Your task to perform on an android device: Open Youtube and go to the subscriptions tab Image 0: 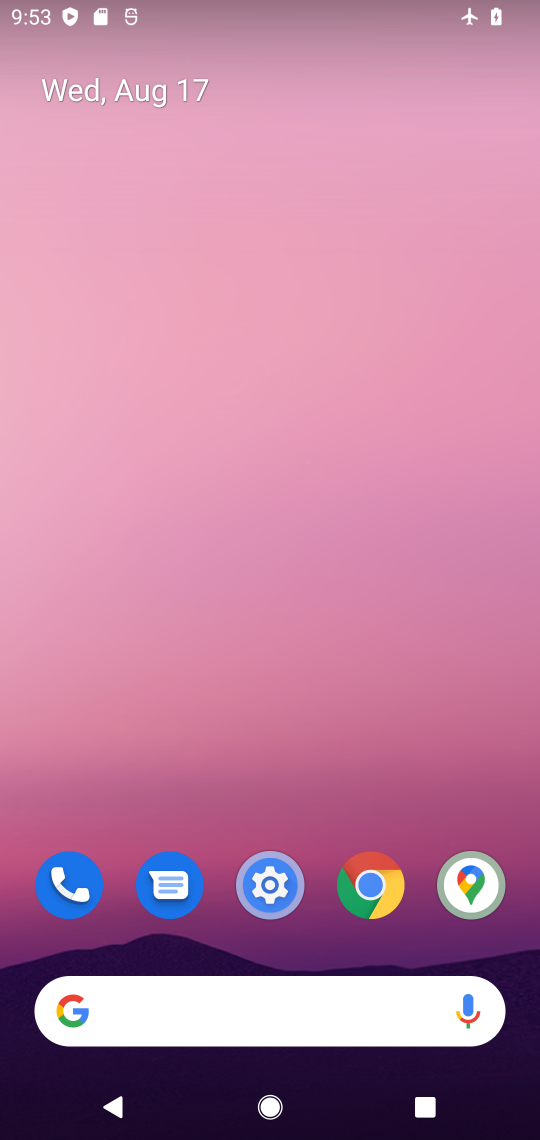
Step 0: drag from (437, 921) to (384, 338)
Your task to perform on an android device: Open Youtube and go to the subscriptions tab Image 1: 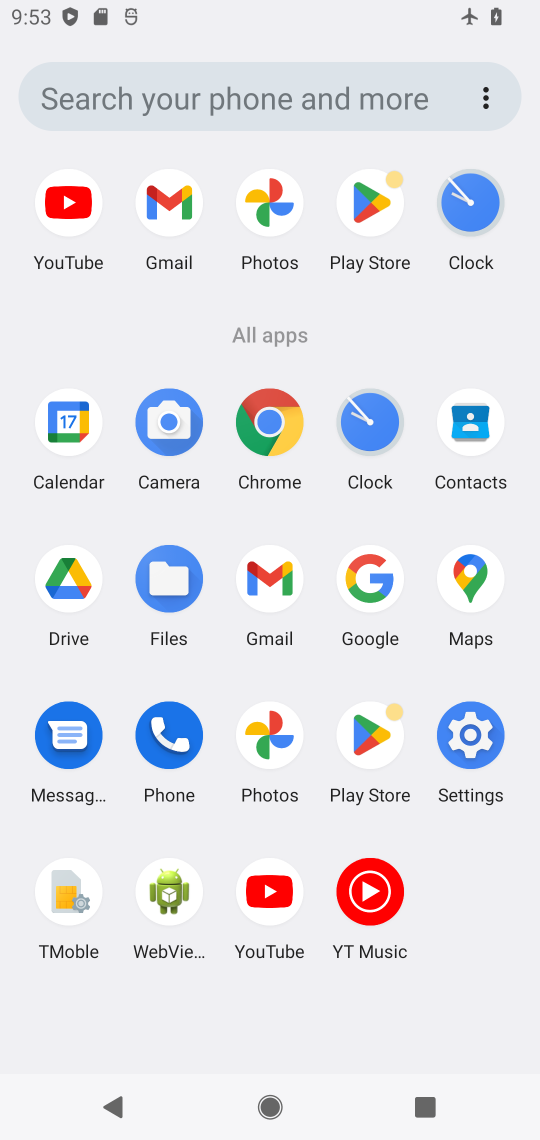
Step 1: click (268, 891)
Your task to perform on an android device: Open Youtube and go to the subscriptions tab Image 2: 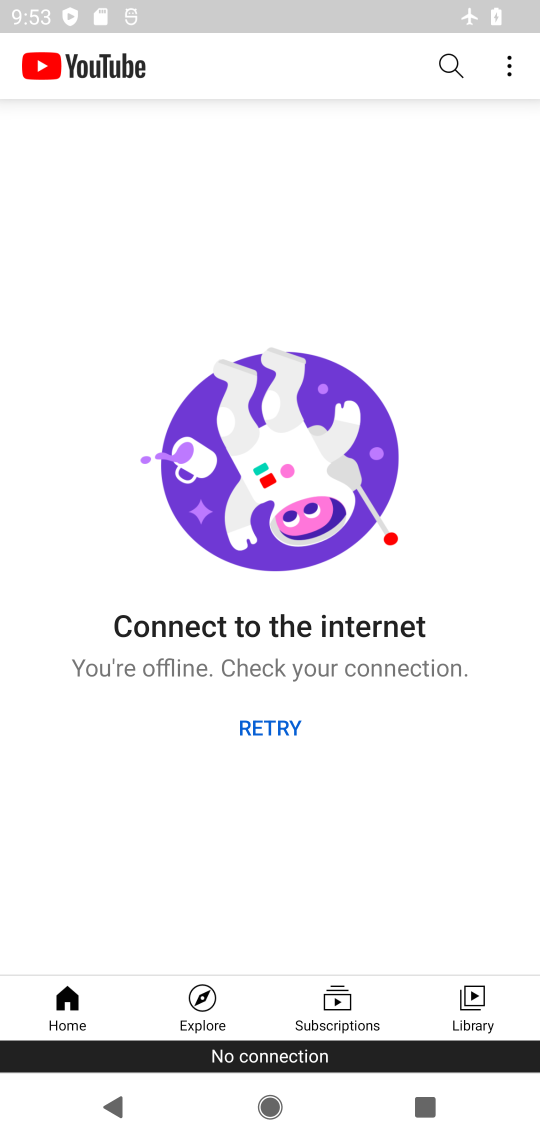
Step 2: click (335, 1009)
Your task to perform on an android device: Open Youtube and go to the subscriptions tab Image 3: 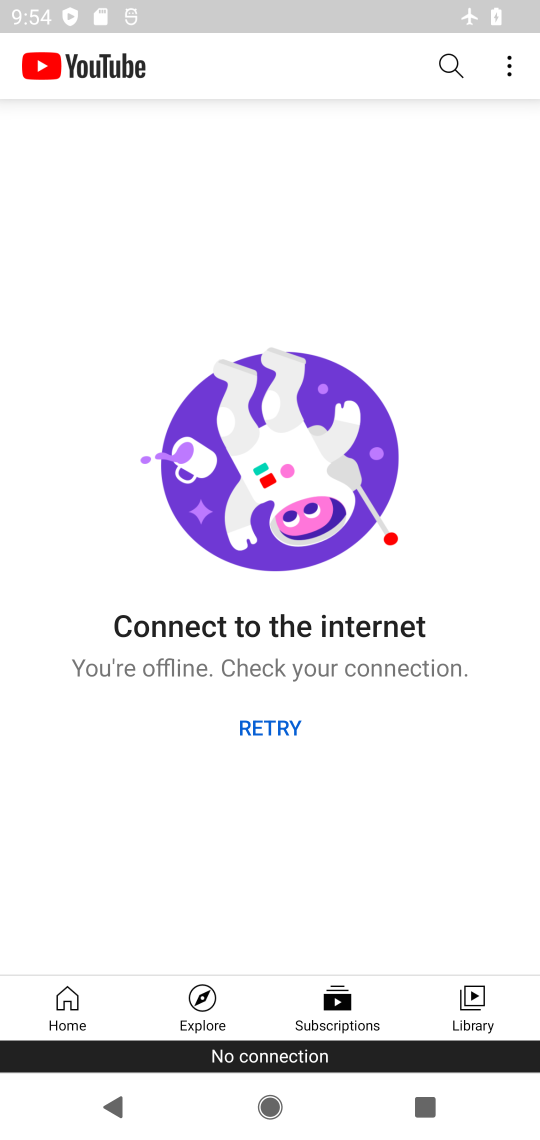
Step 3: task complete